Your task to perform on an android device: Open the calendar app, open the side menu, and click the "Day" option Image 0: 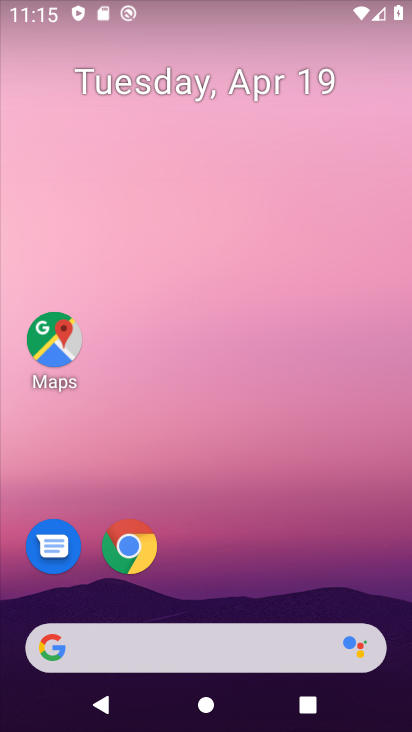
Step 0: drag from (370, 400) to (299, 6)
Your task to perform on an android device: Open the calendar app, open the side menu, and click the "Day" option Image 1: 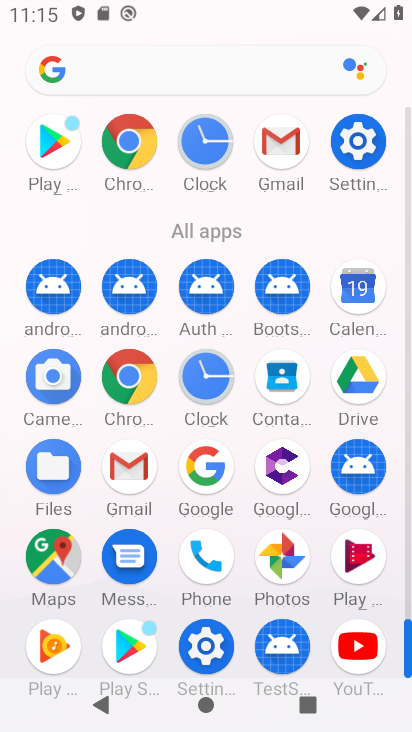
Step 1: drag from (6, 536) to (26, 294)
Your task to perform on an android device: Open the calendar app, open the side menu, and click the "Day" option Image 2: 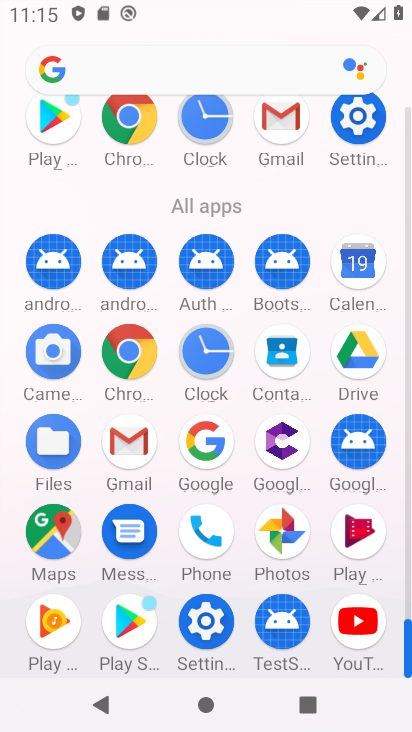
Step 2: click (361, 257)
Your task to perform on an android device: Open the calendar app, open the side menu, and click the "Day" option Image 3: 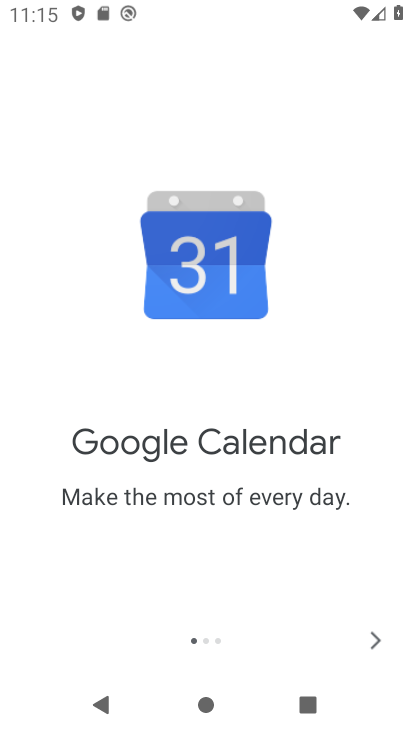
Step 3: click (381, 641)
Your task to perform on an android device: Open the calendar app, open the side menu, and click the "Day" option Image 4: 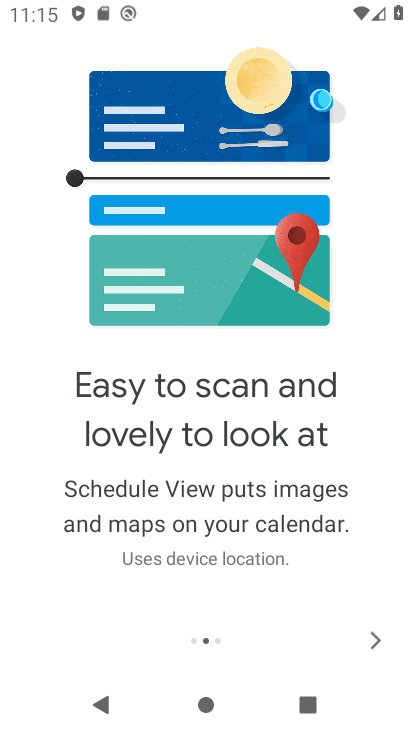
Step 4: click (375, 635)
Your task to perform on an android device: Open the calendar app, open the side menu, and click the "Day" option Image 5: 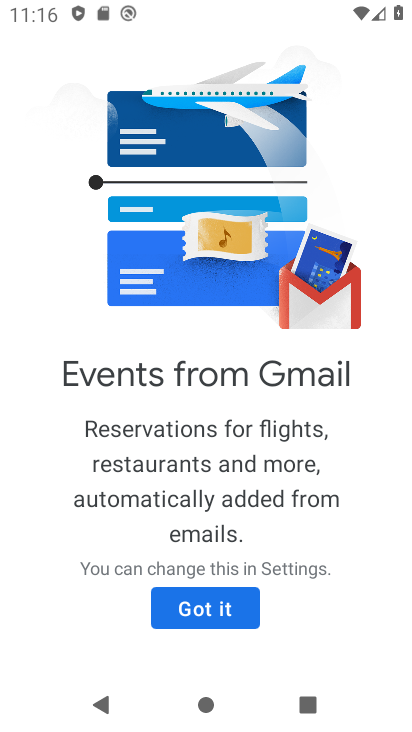
Step 5: click (187, 601)
Your task to perform on an android device: Open the calendar app, open the side menu, and click the "Day" option Image 6: 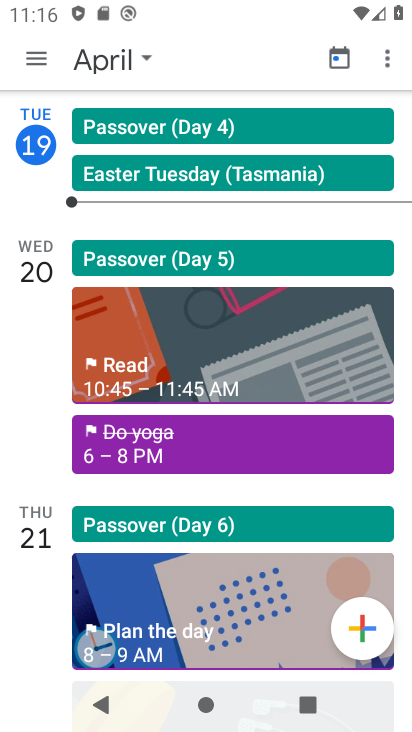
Step 6: click (43, 55)
Your task to perform on an android device: Open the calendar app, open the side menu, and click the "Day" option Image 7: 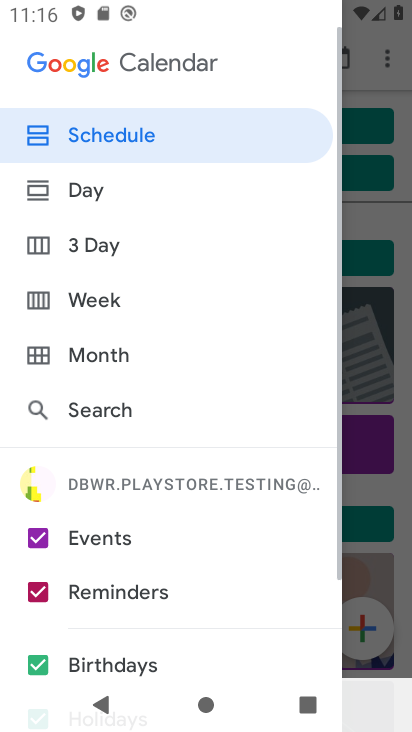
Step 7: click (56, 199)
Your task to perform on an android device: Open the calendar app, open the side menu, and click the "Day" option Image 8: 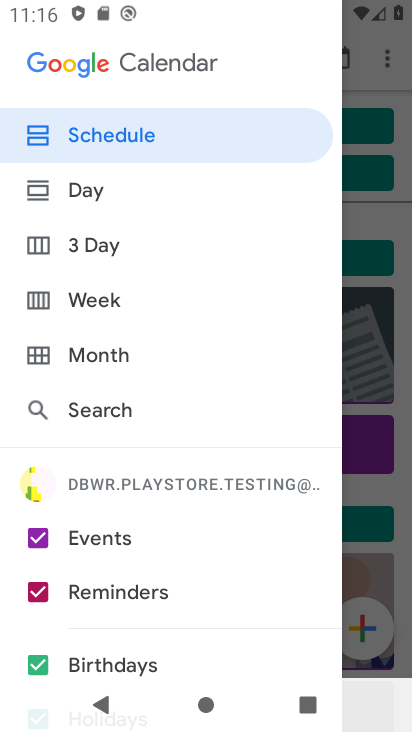
Step 8: click (139, 191)
Your task to perform on an android device: Open the calendar app, open the side menu, and click the "Day" option Image 9: 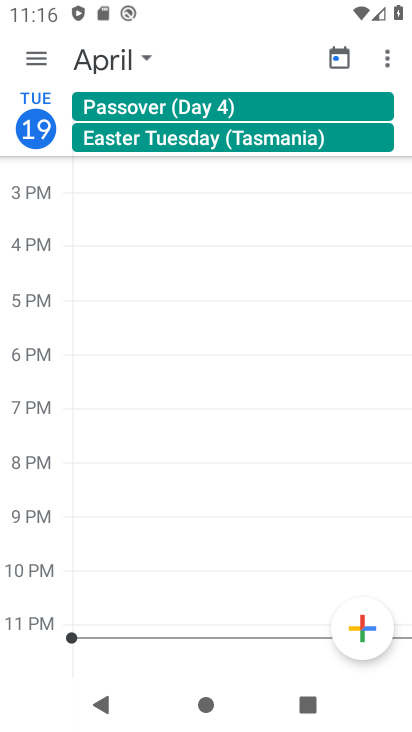
Step 9: task complete